Your task to perform on an android device: What's the weather like in Los Angeles? Image 0: 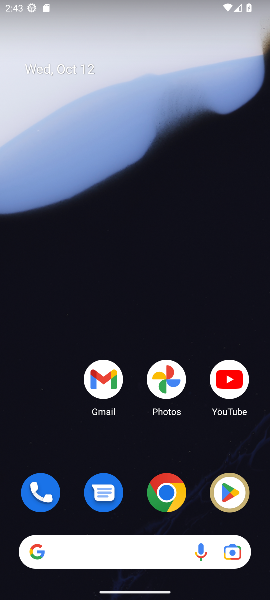
Step 0: click (166, 493)
Your task to perform on an android device: What's the weather like in Los Angeles? Image 1: 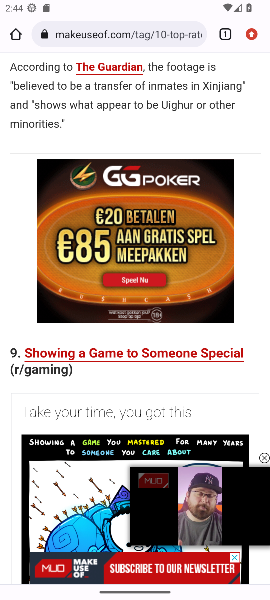
Step 1: click (88, 33)
Your task to perform on an android device: What's the weather like in Los Angeles? Image 2: 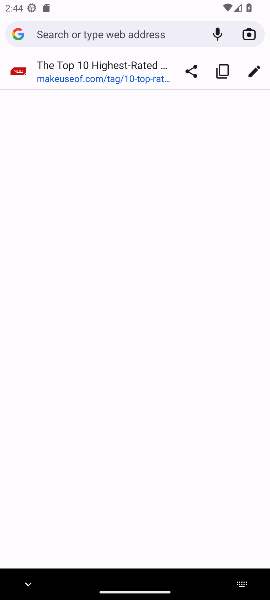
Step 2: type "Los Angeles weather "
Your task to perform on an android device: What's the weather like in Los Angeles? Image 3: 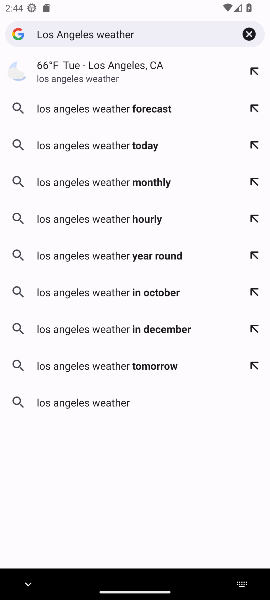
Step 3: click (96, 77)
Your task to perform on an android device: What's the weather like in Los Angeles? Image 4: 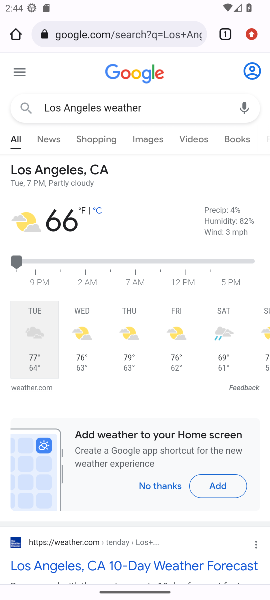
Step 4: task complete